Your task to perform on an android device: Open maps Image 0: 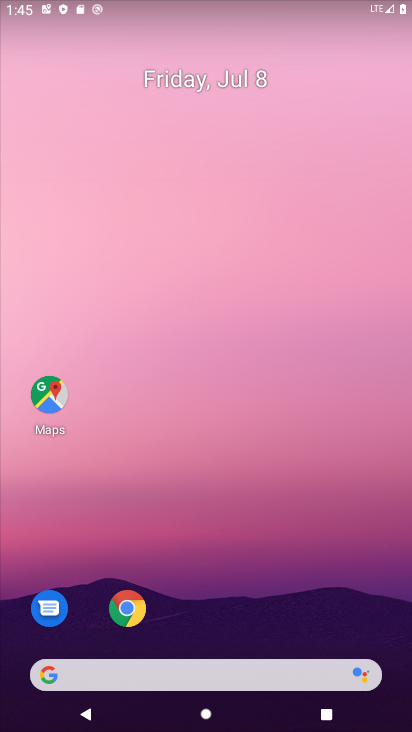
Step 0: click (50, 395)
Your task to perform on an android device: Open maps Image 1: 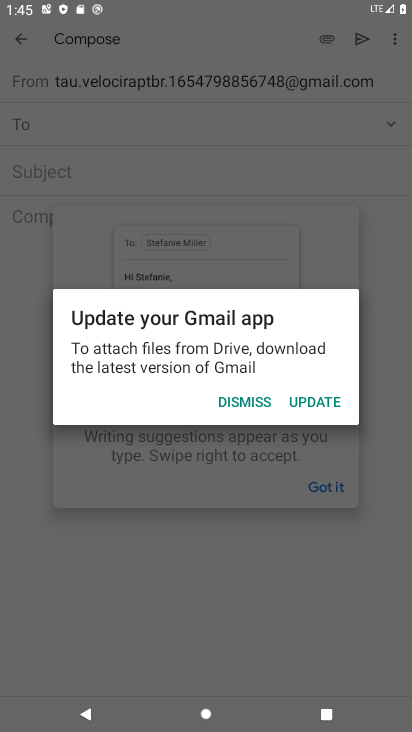
Step 1: task complete